Your task to perform on an android device: Go to Amazon Image 0: 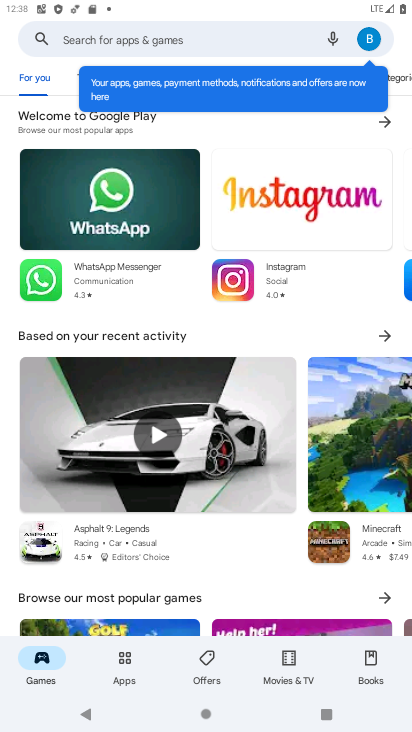
Step 0: press home button
Your task to perform on an android device: Go to Amazon Image 1: 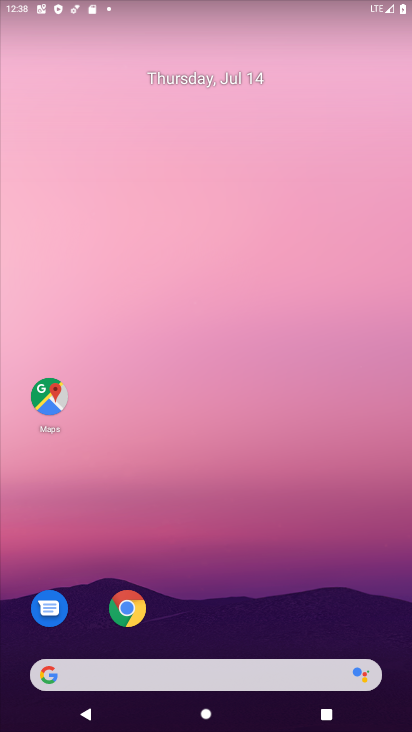
Step 1: click (116, 604)
Your task to perform on an android device: Go to Amazon Image 2: 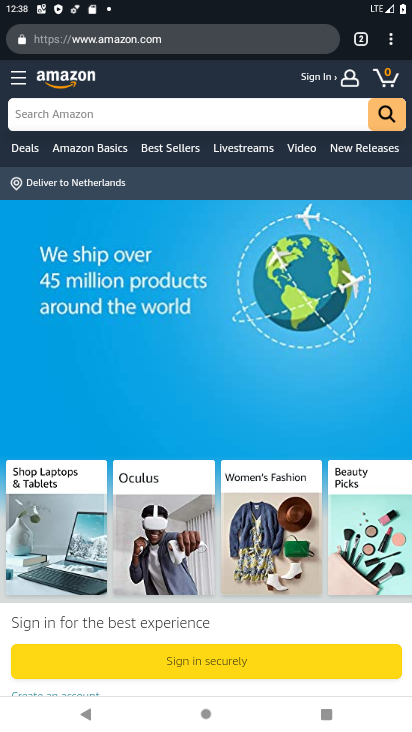
Step 2: task complete